Your task to perform on an android device: uninstall "Flipkart Online Shopping App" Image 0: 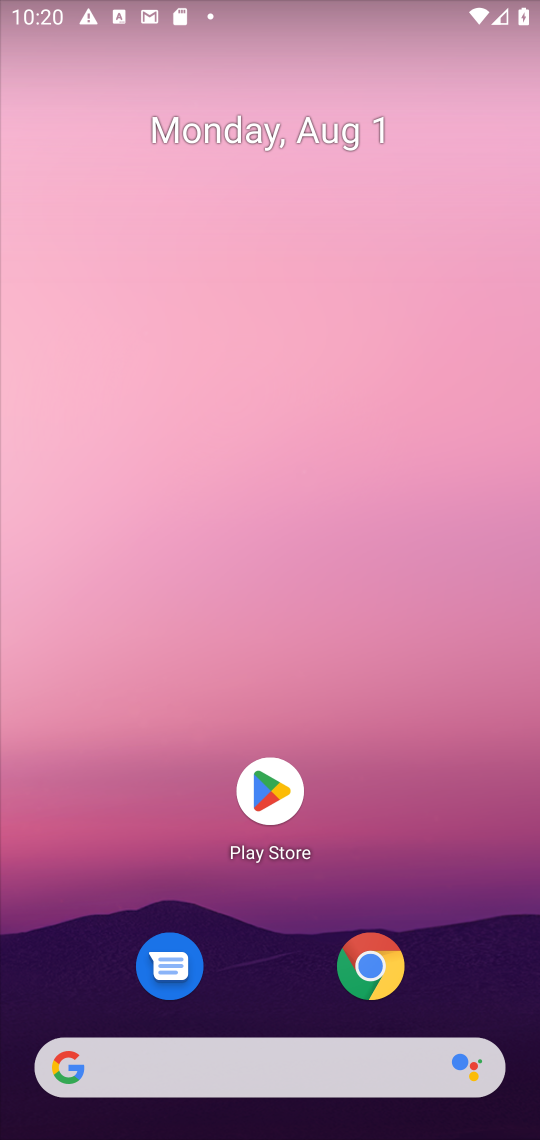
Step 0: click (278, 784)
Your task to perform on an android device: uninstall "Flipkart Online Shopping App" Image 1: 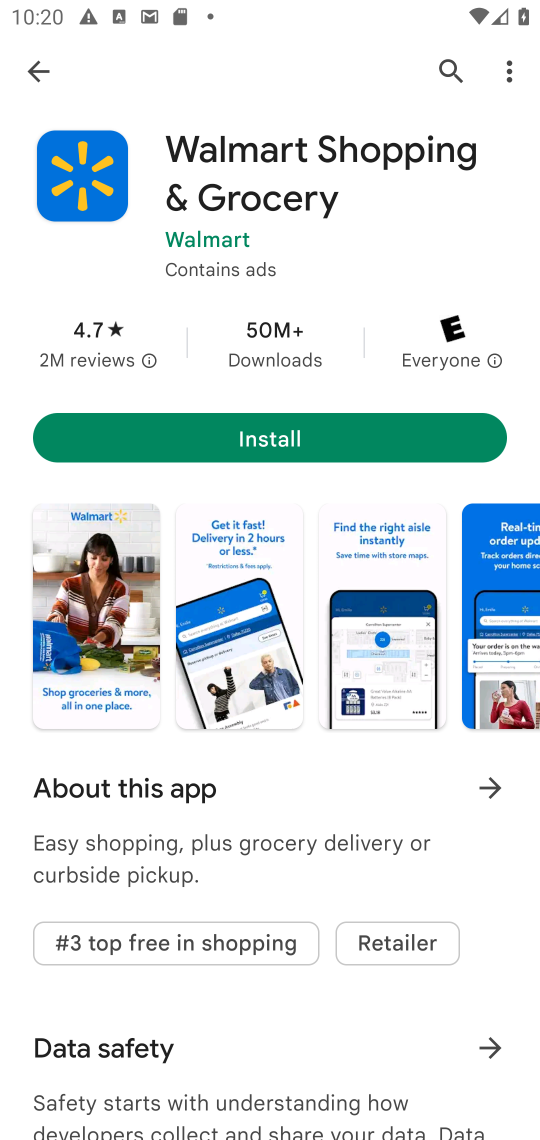
Step 1: click (456, 66)
Your task to perform on an android device: uninstall "Flipkart Online Shopping App" Image 2: 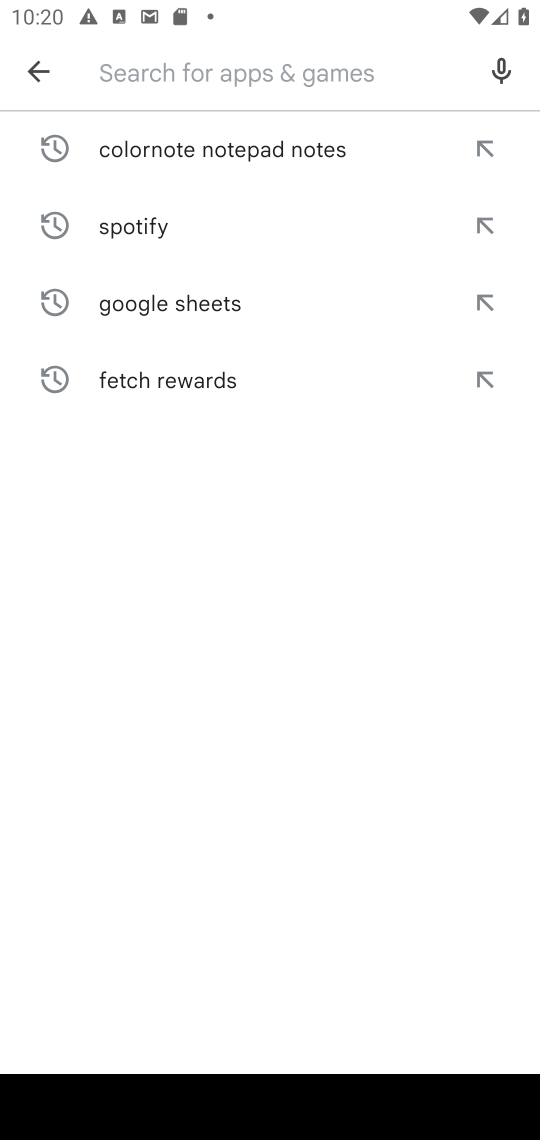
Step 2: type "Flipkart Online Shopping App"
Your task to perform on an android device: uninstall "Flipkart Online Shopping App" Image 3: 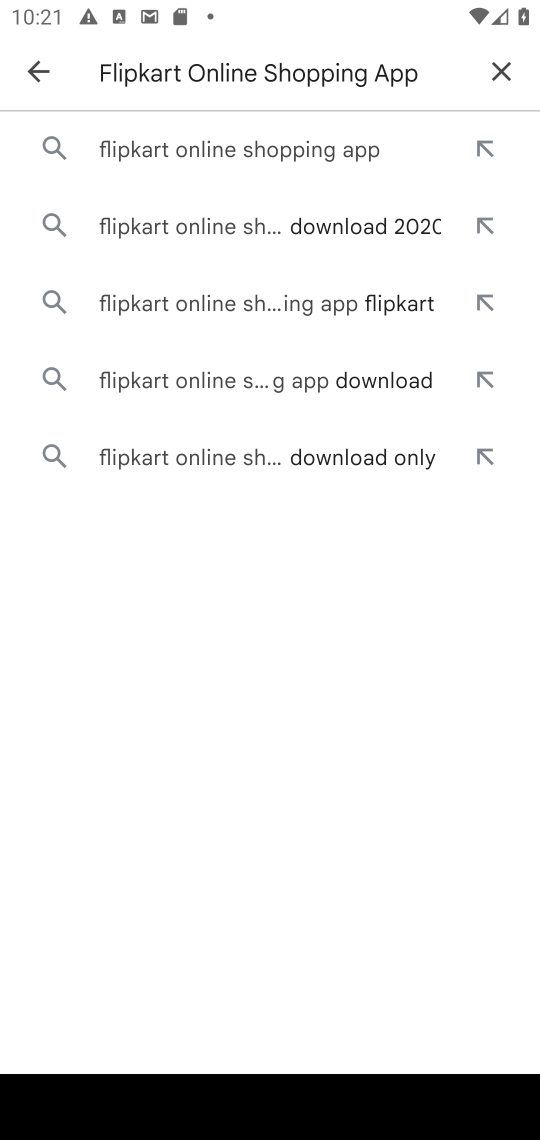
Step 3: click (247, 150)
Your task to perform on an android device: uninstall "Flipkart Online Shopping App" Image 4: 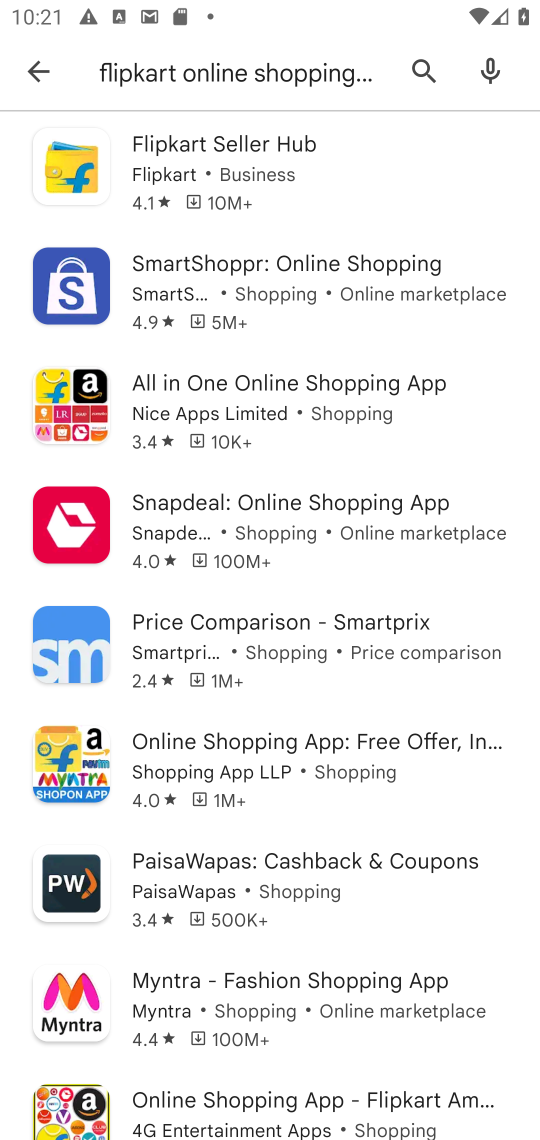
Step 4: task complete